Your task to perform on an android device: Go to Google maps Image 0: 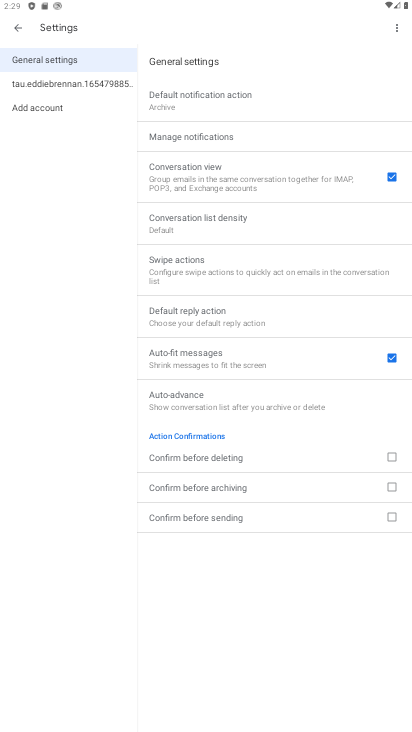
Step 0: press home button
Your task to perform on an android device: Go to Google maps Image 1: 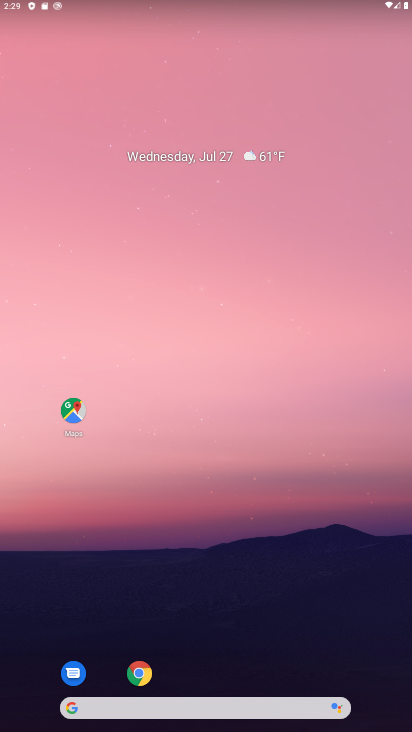
Step 1: click (69, 405)
Your task to perform on an android device: Go to Google maps Image 2: 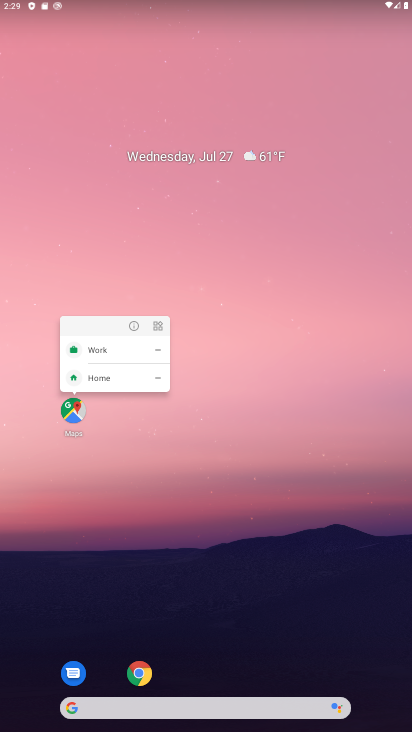
Step 2: click (68, 413)
Your task to perform on an android device: Go to Google maps Image 3: 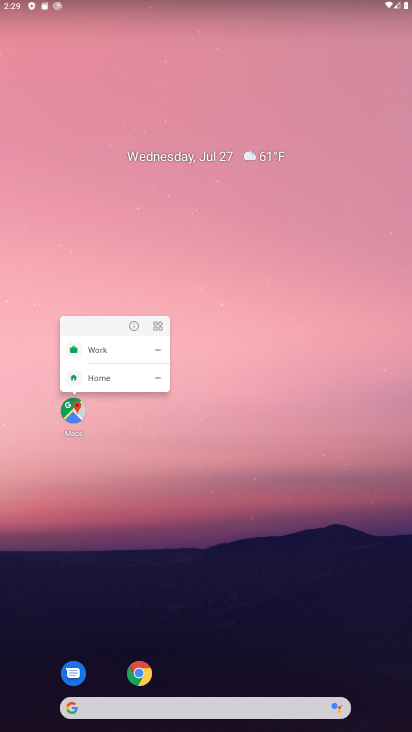
Step 3: click (67, 406)
Your task to perform on an android device: Go to Google maps Image 4: 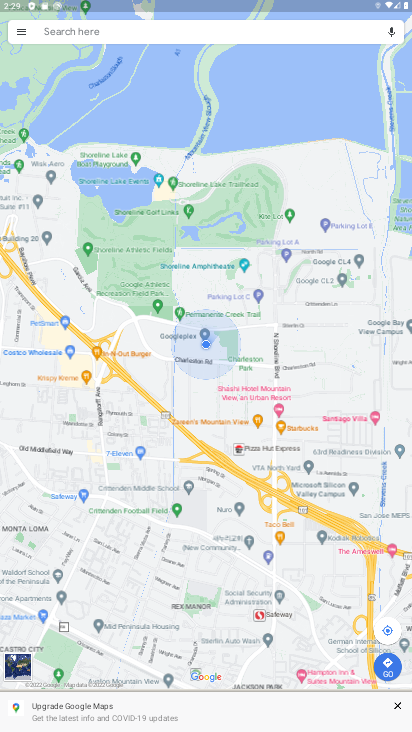
Step 4: task complete